Your task to perform on an android device: turn on data saver in the chrome app Image 0: 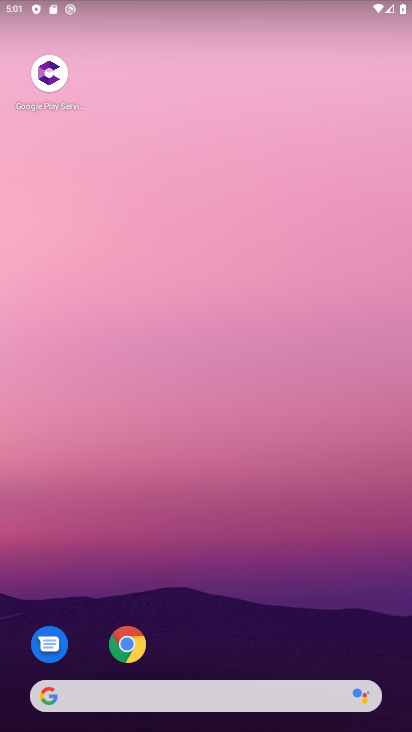
Step 0: drag from (209, 595) to (302, 157)
Your task to perform on an android device: turn on data saver in the chrome app Image 1: 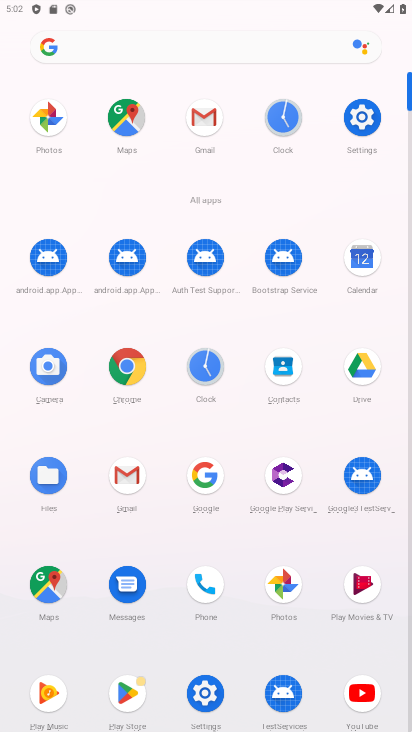
Step 1: click (130, 370)
Your task to perform on an android device: turn on data saver in the chrome app Image 2: 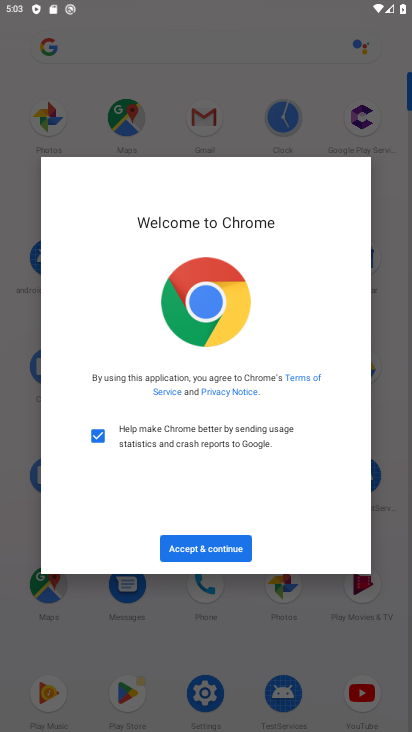
Step 2: click (218, 545)
Your task to perform on an android device: turn on data saver in the chrome app Image 3: 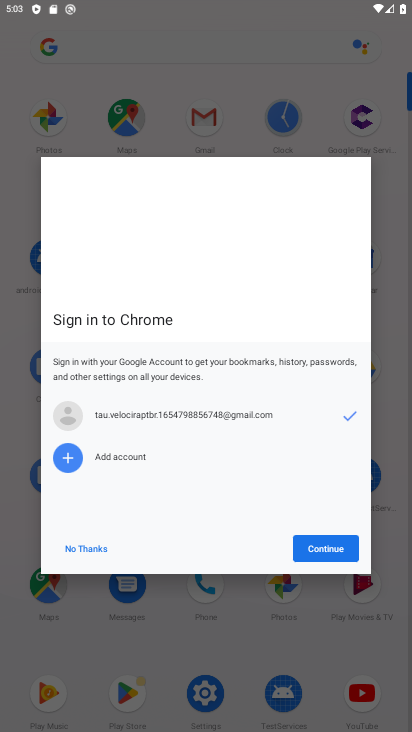
Step 3: click (331, 540)
Your task to perform on an android device: turn on data saver in the chrome app Image 4: 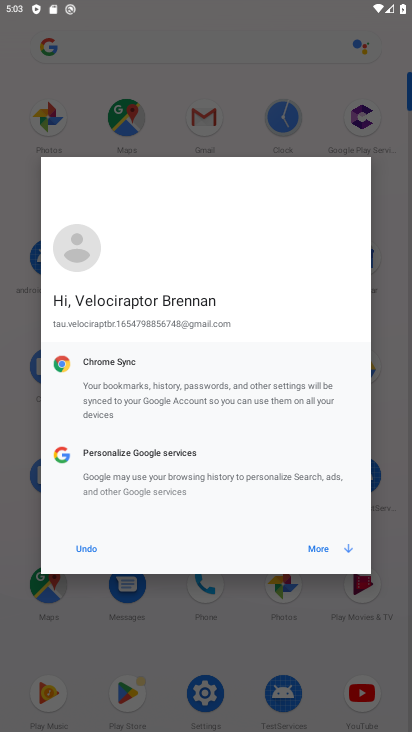
Step 4: click (331, 540)
Your task to perform on an android device: turn on data saver in the chrome app Image 5: 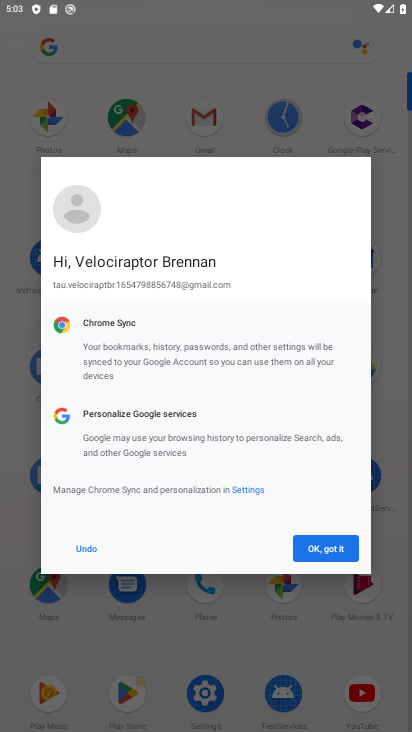
Step 5: click (331, 540)
Your task to perform on an android device: turn on data saver in the chrome app Image 6: 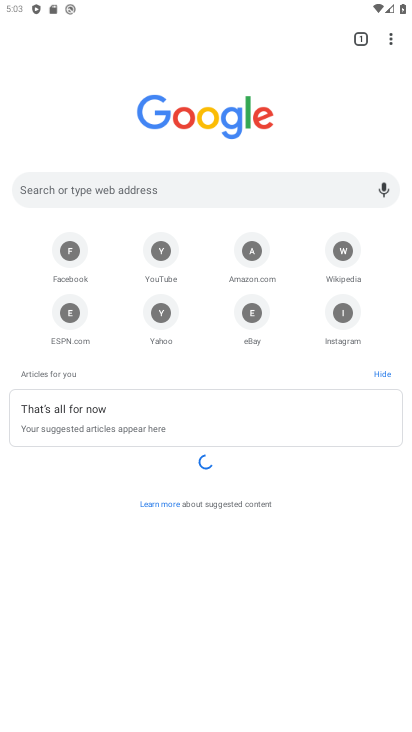
Step 6: drag from (389, 48) to (261, 323)
Your task to perform on an android device: turn on data saver in the chrome app Image 7: 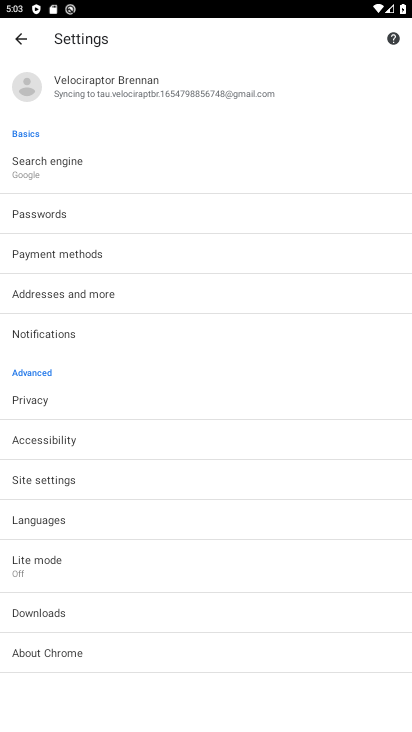
Step 7: click (21, 560)
Your task to perform on an android device: turn on data saver in the chrome app Image 8: 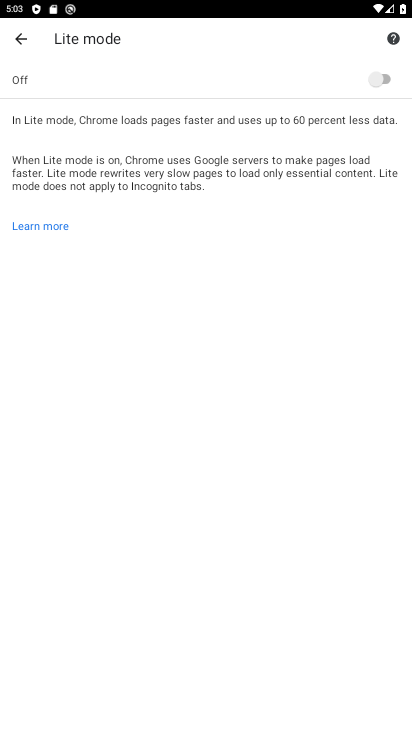
Step 8: click (383, 74)
Your task to perform on an android device: turn on data saver in the chrome app Image 9: 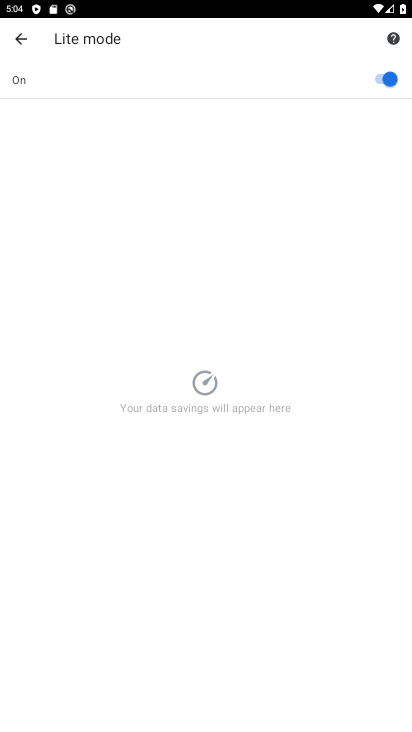
Step 9: task complete